Your task to perform on an android device: Do I have any events this weekend? Image 0: 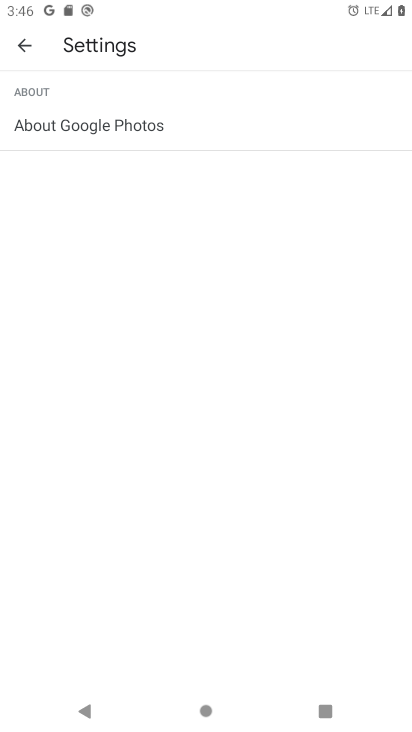
Step 0: press home button
Your task to perform on an android device: Do I have any events this weekend? Image 1: 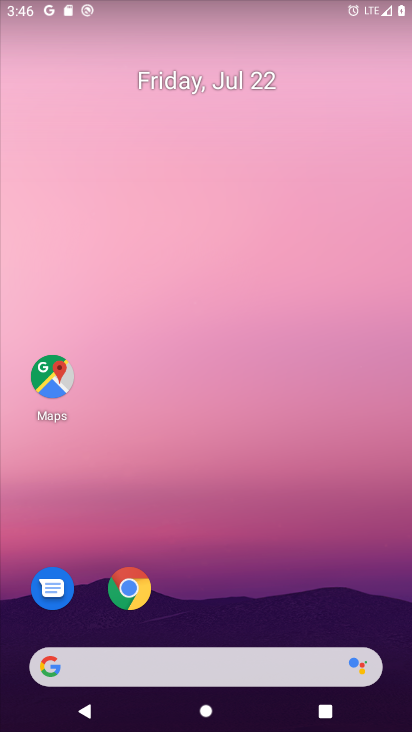
Step 1: drag from (355, 559) to (405, 46)
Your task to perform on an android device: Do I have any events this weekend? Image 2: 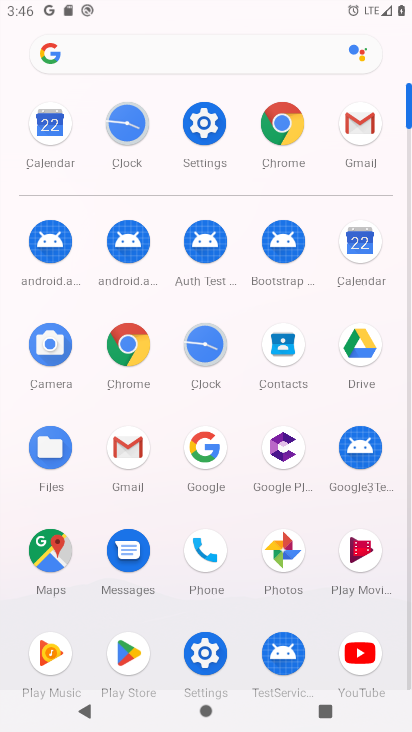
Step 2: click (365, 242)
Your task to perform on an android device: Do I have any events this weekend? Image 3: 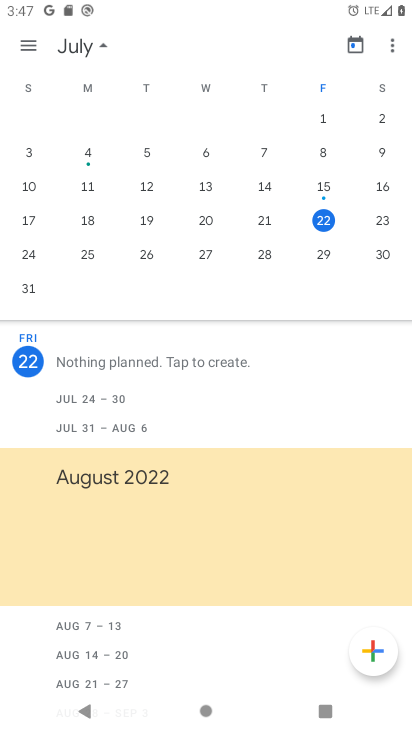
Step 3: click (378, 218)
Your task to perform on an android device: Do I have any events this weekend? Image 4: 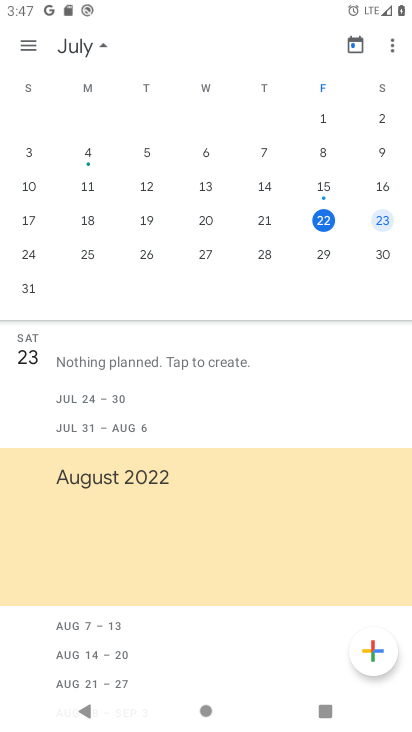
Step 4: task complete